Your task to perform on an android device: toggle show notifications on the lock screen Image 0: 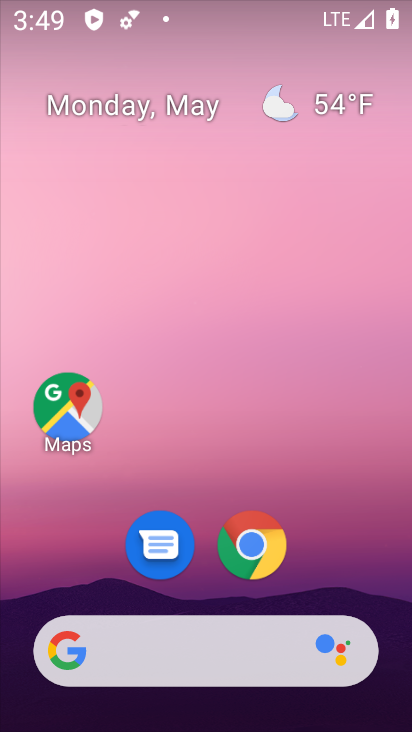
Step 0: drag from (399, 648) to (276, 168)
Your task to perform on an android device: toggle show notifications on the lock screen Image 1: 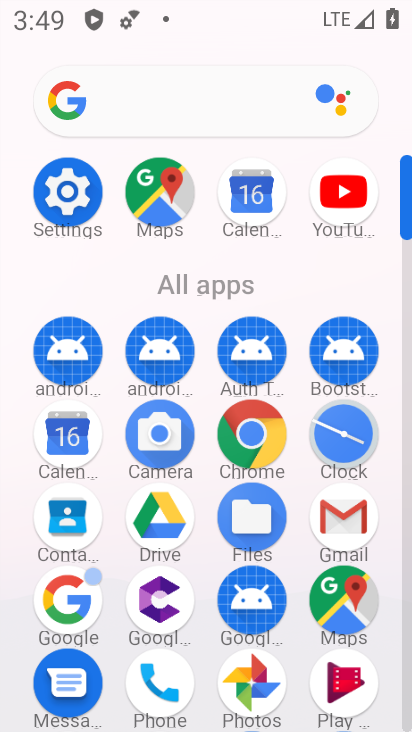
Step 1: click (408, 693)
Your task to perform on an android device: toggle show notifications on the lock screen Image 2: 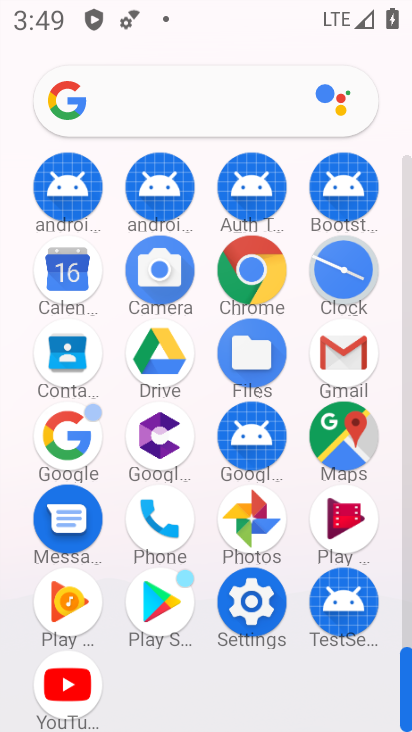
Step 2: click (250, 604)
Your task to perform on an android device: toggle show notifications on the lock screen Image 3: 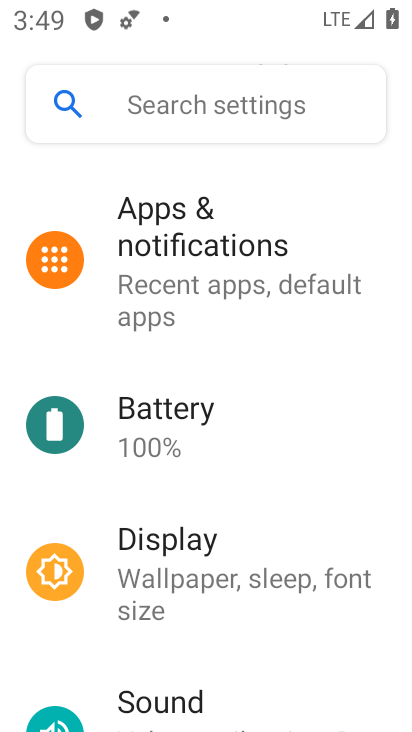
Step 3: drag from (367, 662) to (314, 387)
Your task to perform on an android device: toggle show notifications on the lock screen Image 4: 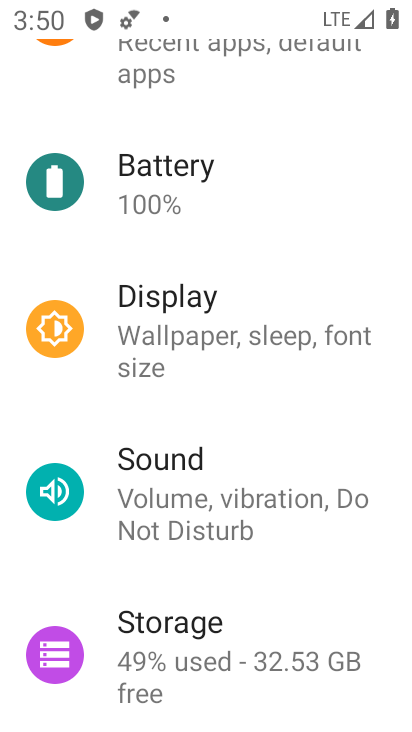
Step 4: drag from (334, 646) to (312, 276)
Your task to perform on an android device: toggle show notifications on the lock screen Image 5: 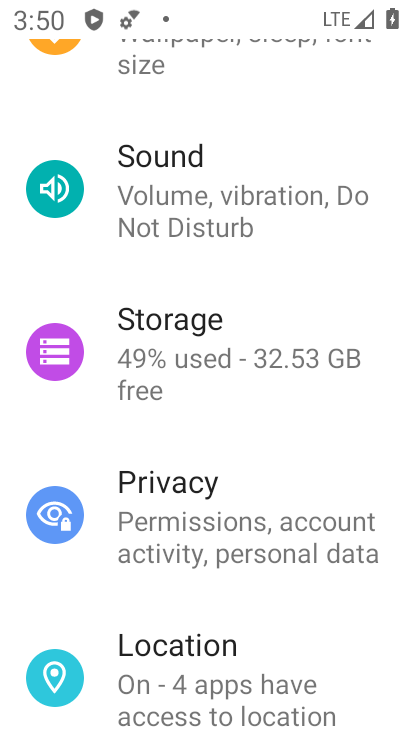
Step 5: drag from (260, 328) to (297, 594)
Your task to perform on an android device: toggle show notifications on the lock screen Image 6: 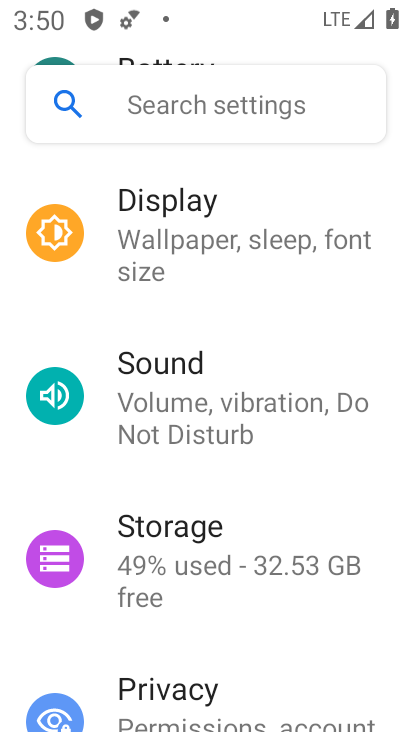
Step 6: drag from (372, 282) to (358, 570)
Your task to perform on an android device: toggle show notifications on the lock screen Image 7: 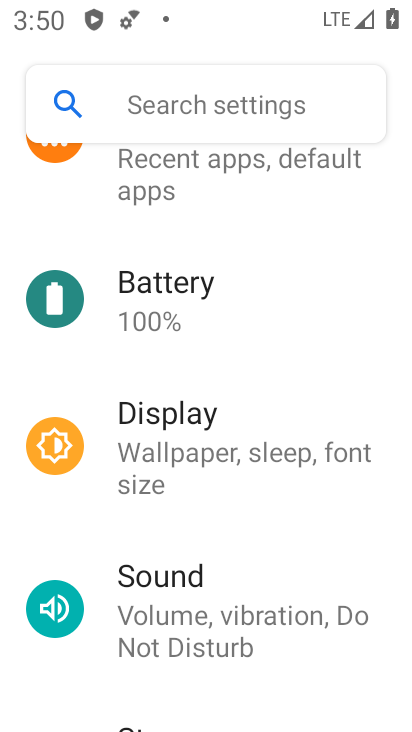
Step 7: drag from (324, 297) to (339, 601)
Your task to perform on an android device: toggle show notifications on the lock screen Image 8: 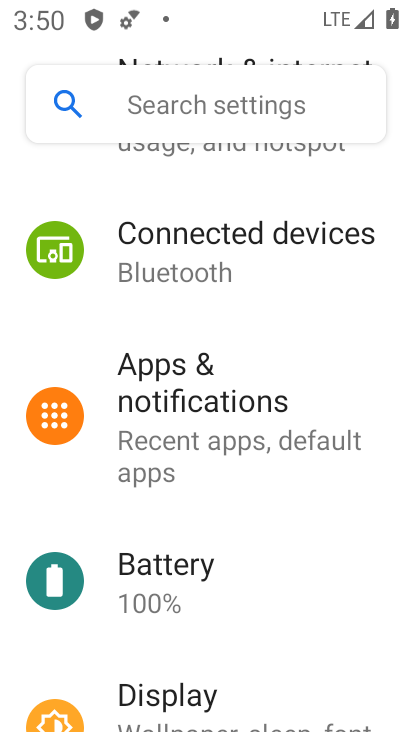
Step 8: click (184, 404)
Your task to perform on an android device: toggle show notifications on the lock screen Image 9: 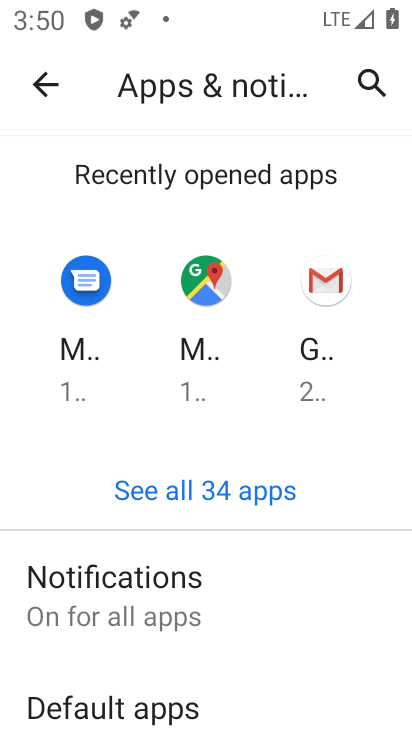
Step 9: click (106, 584)
Your task to perform on an android device: toggle show notifications on the lock screen Image 10: 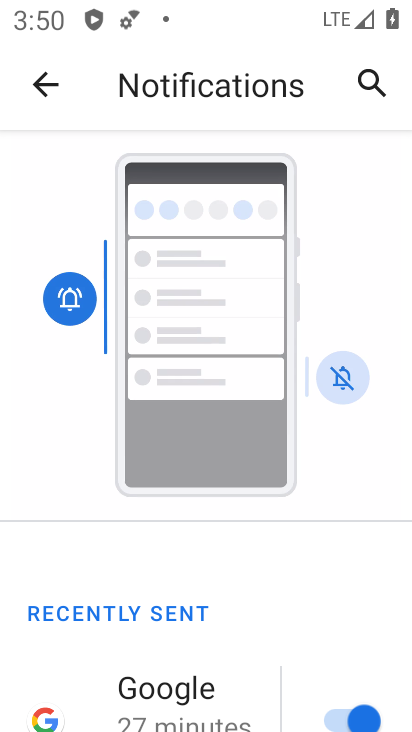
Step 10: drag from (269, 694) to (187, 261)
Your task to perform on an android device: toggle show notifications on the lock screen Image 11: 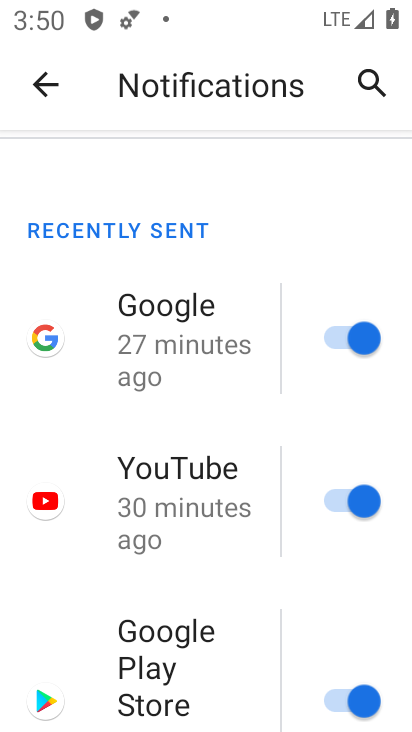
Step 11: drag from (247, 668) to (195, 220)
Your task to perform on an android device: toggle show notifications on the lock screen Image 12: 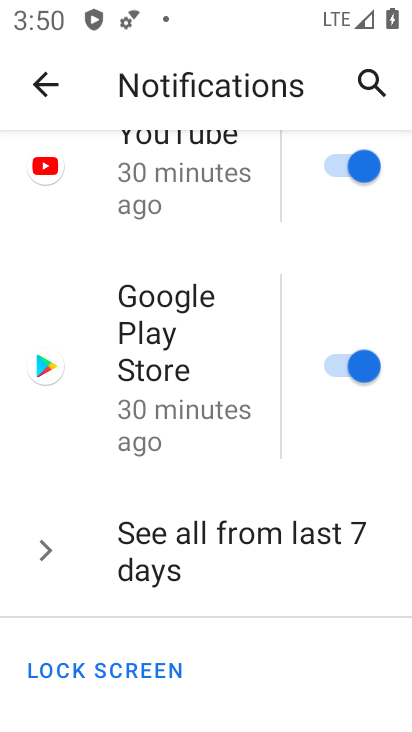
Step 12: drag from (281, 649) to (191, 238)
Your task to perform on an android device: toggle show notifications on the lock screen Image 13: 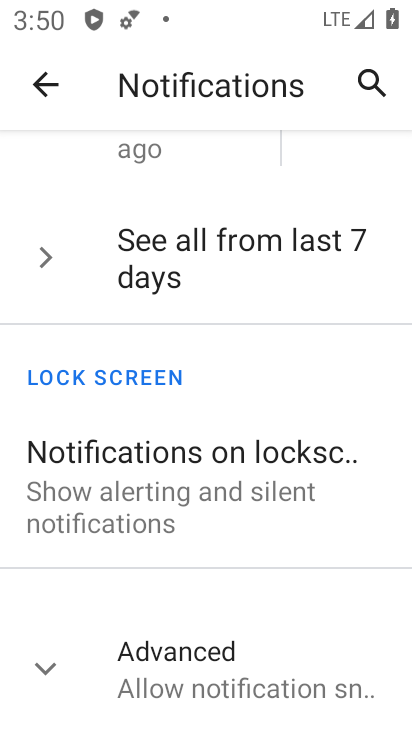
Step 13: click (130, 476)
Your task to perform on an android device: toggle show notifications on the lock screen Image 14: 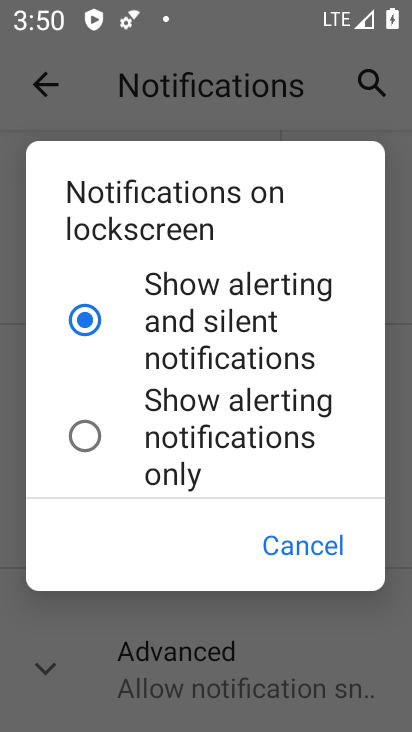
Step 14: click (74, 430)
Your task to perform on an android device: toggle show notifications on the lock screen Image 15: 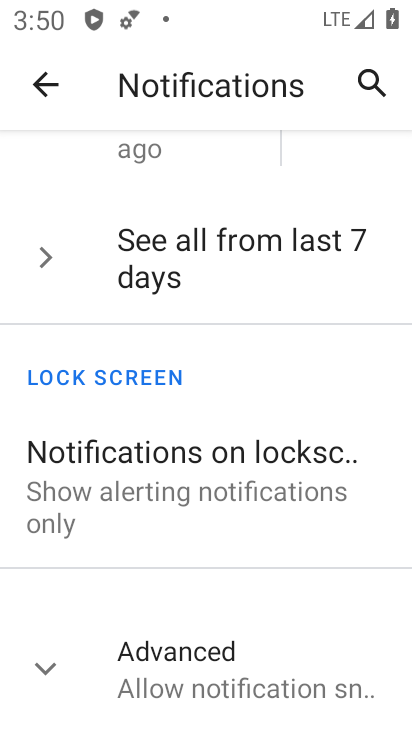
Step 15: task complete